Your task to perform on an android device: find photos in the google photos app Image 0: 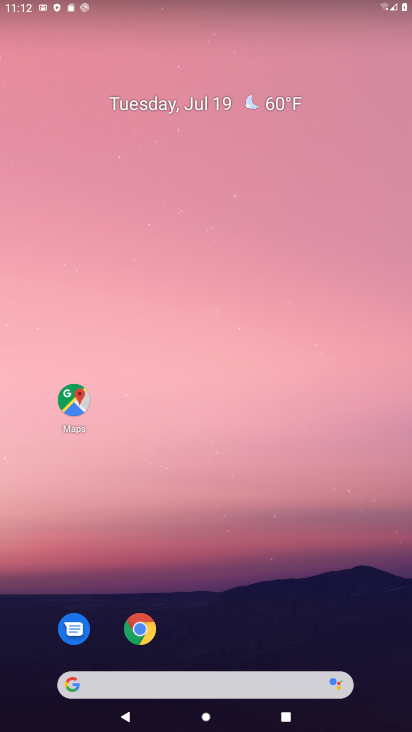
Step 0: drag from (278, 626) to (287, 227)
Your task to perform on an android device: find photos in the google photos app Image 1: 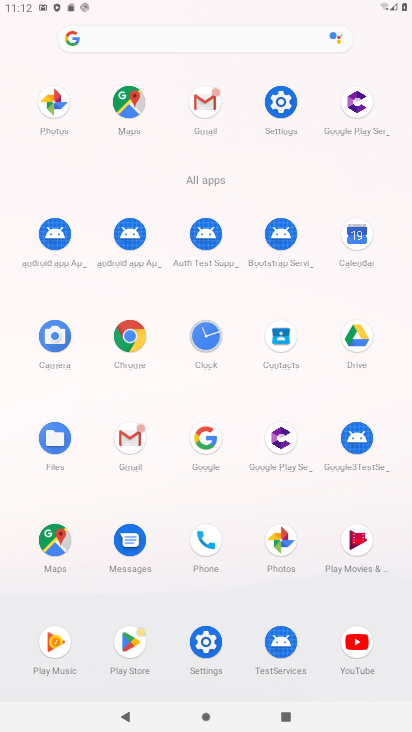
Step 1: click (278, 541)
Your task to perform on an android device: find photos in the google photos app Image 2: 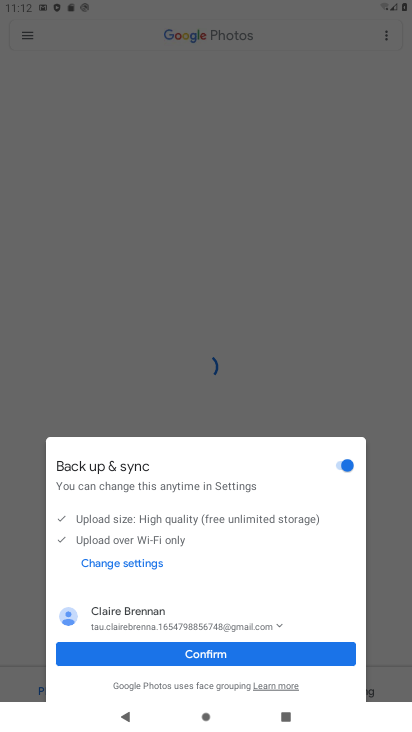
Step 2: click (324, 655)
Your task to perform on an android device: find photos in the google photos app Image 3: 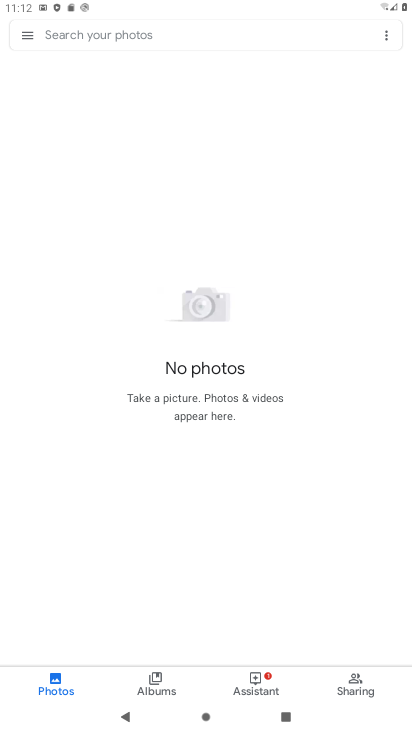
Step 3: task complete